Your task to perform on an android device: empty trash in google photos Image 0: 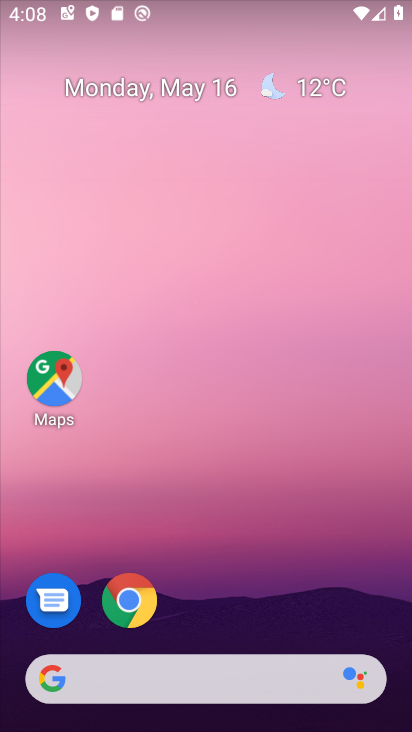
Step 0: drag from (213, 661) to (201, 132)
Your task to perform on an android device: empty trash in google photos Image 1: 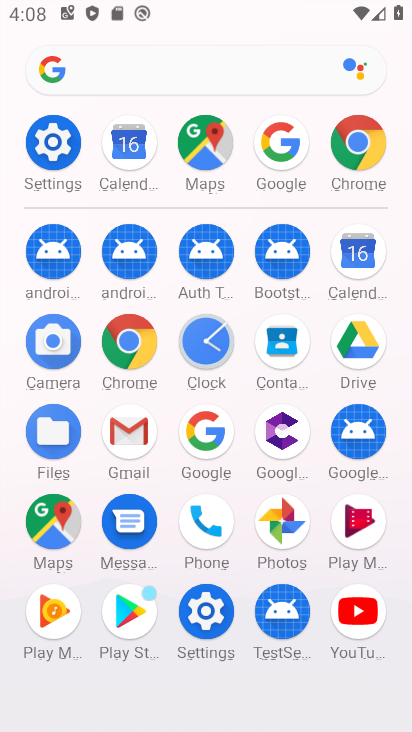
Step 1: click (284, 520)
Your task to perform on an android device: empty trash in google photos Image 2: 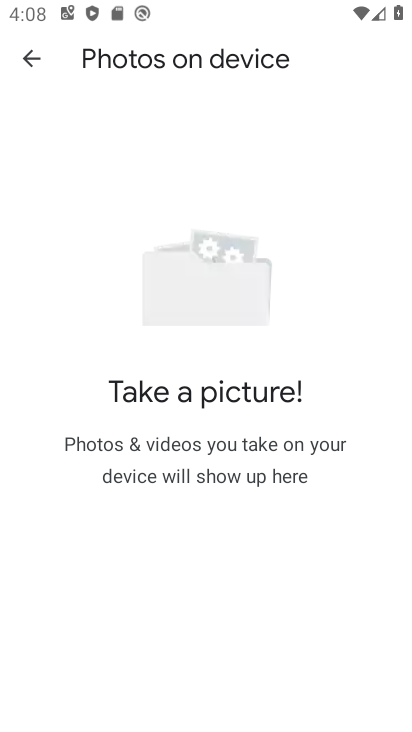
Step 2: click (29, 52)
Your task to perform on an android device: empty trash in google photos Image 3: 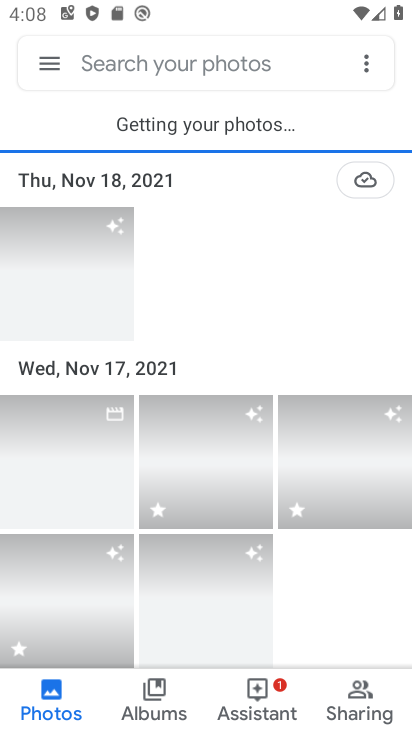
Step 3: click (41, 58)
Your task to perform on an android device: empty trash in google photos Image 4: 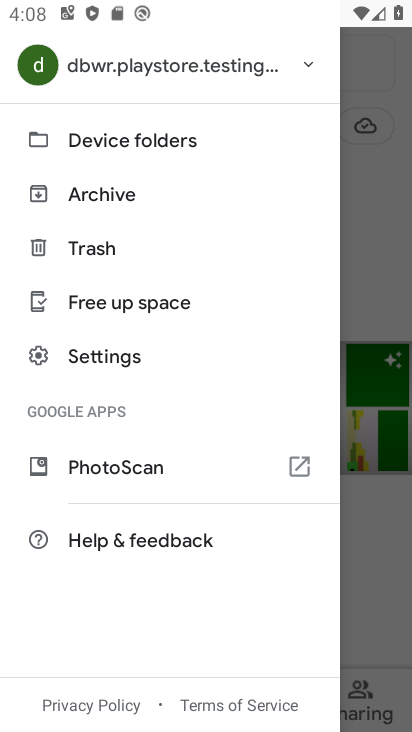
Step 4: click (96, 260)
Your task to perform on an android device: empty trash in google photos Image 5: 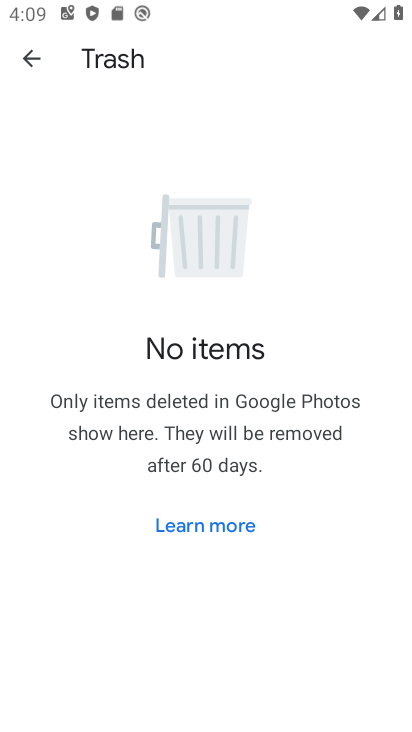
Step 5: task complete